Your task to perform on an android device: Open Google Chrome and click the shortcut for Amazon.com Image 0: 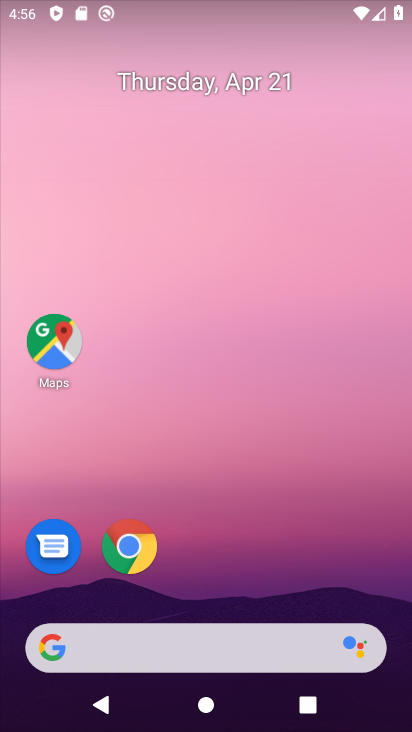
Step 0: drag from (318, 524) to (299, 62)
Your task to perform on an android device: Open Google Chrome and click the shortcut for Amazon.com Image 1: 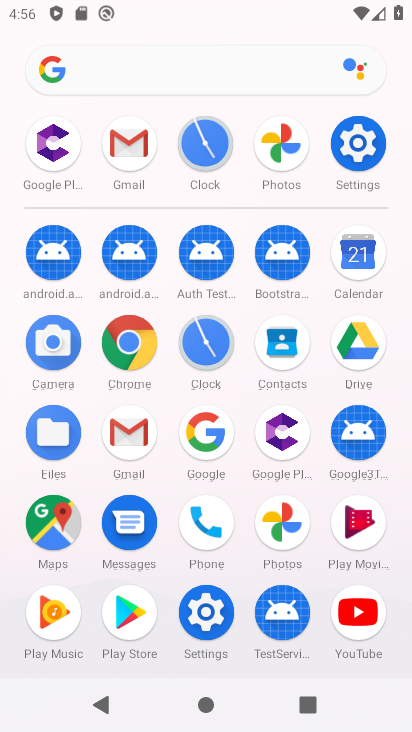
Step 1: click (125, 340)
Your task to perform on an android device: Open Google Chrome and click the shortcut for Amazon.com Image 2: 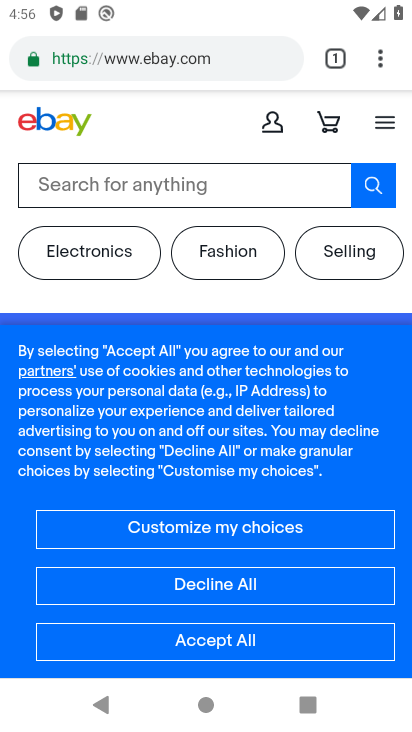
Step 2: click (378, 54)
Your task to perform on an android device: Open Google Chrome and click the shortcut for Amazon.com Image 3: 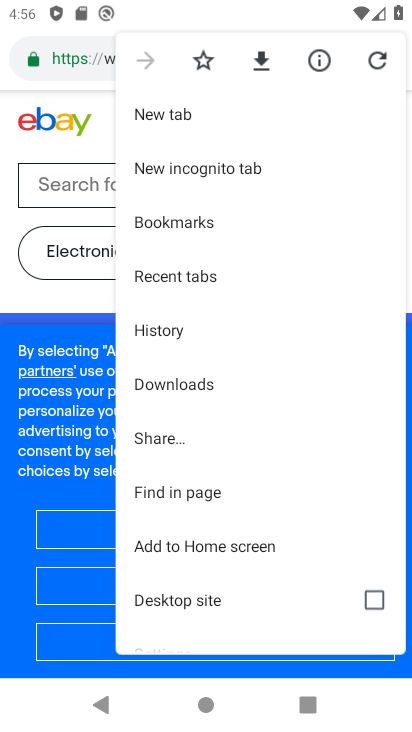
Step 3: click (174, 112)
Your task to perform on an android device: Open Google Chrome and click the shortcut for Amazon.com Image 4: 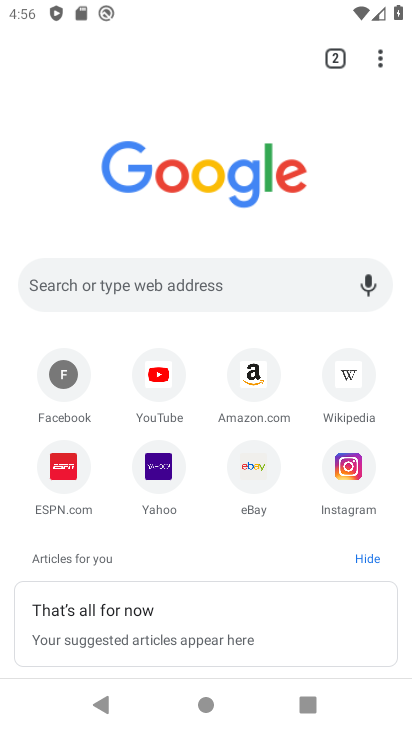
Step 4: click (263, 373)
Your task to perform on an android device: Open Google Chrome and click the shortcut for Amazon.com Image 5: 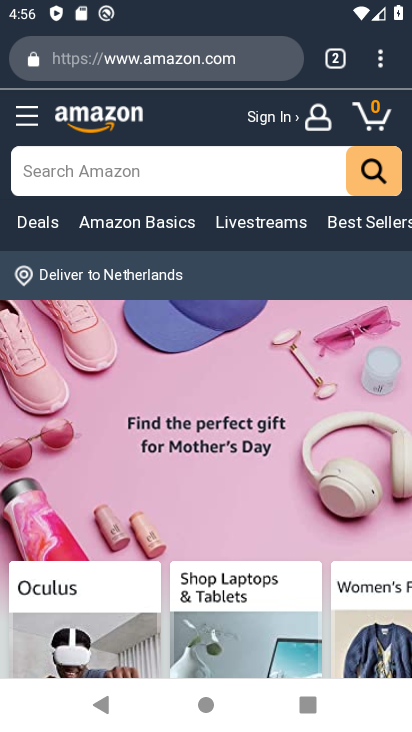
Step 5: task complete